Your task to perform on an android device: Check the news Image 0: 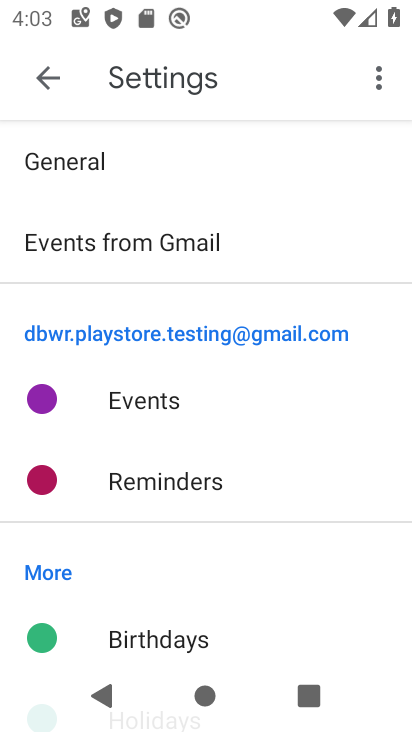
Step 0: press home button
Your task to perform on an android device: Check the news Image 1: 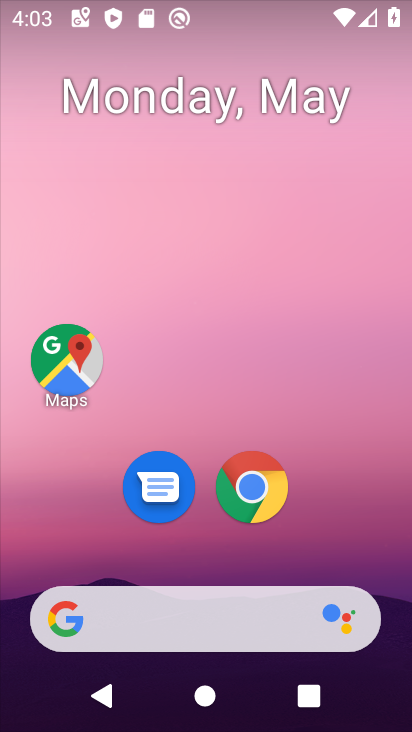
Step 1: drag from (183, 547) to (214, 112)
Your task to perform on an android device: Check the news Image 2: 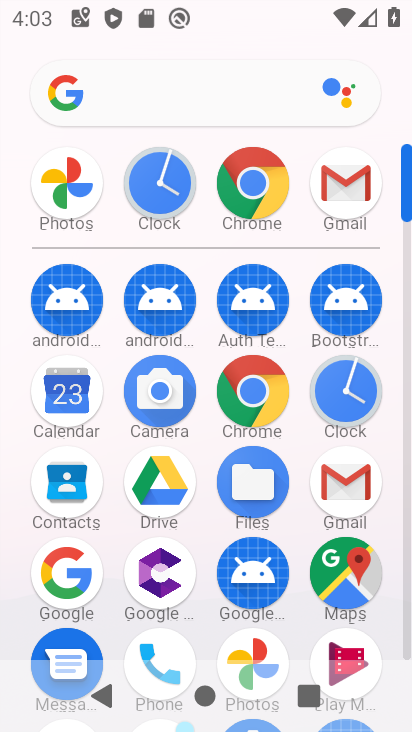
Step 2: click (58, 576)
Your task to perform on an android device: Check the news Image 3: 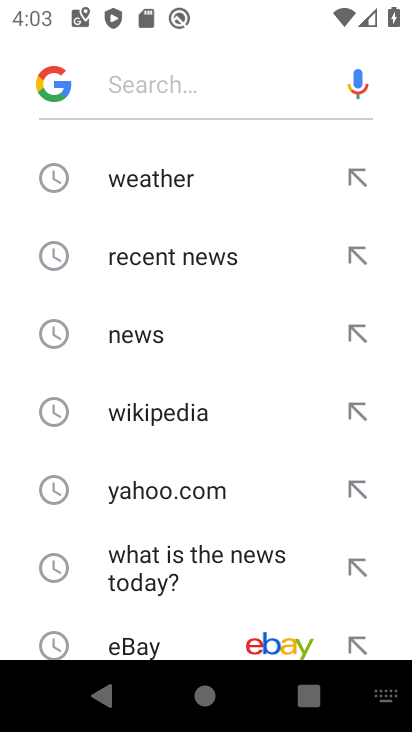
Step 3: click (86, 333)
Your task to perform on an android device: Check the news Image 4: 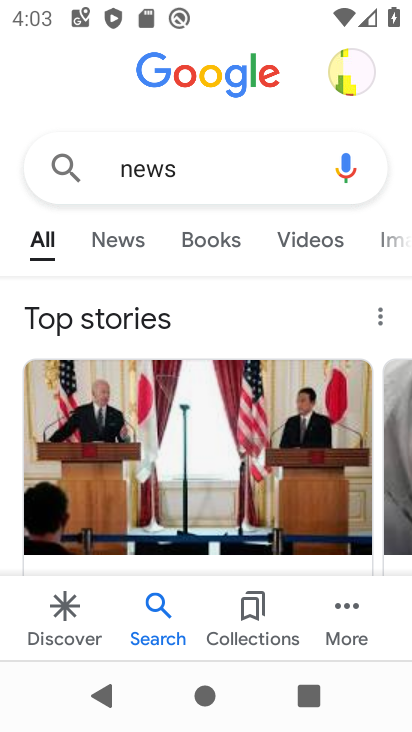
Step 4: task complete